Your task to perform on an android device: change your default location settings in chrome Image 0: 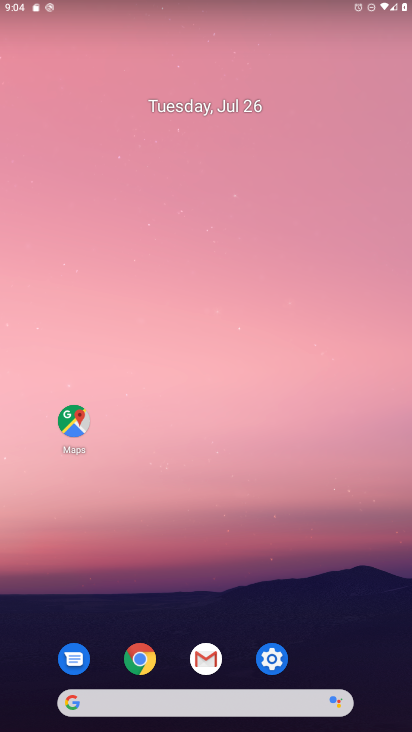
Step 0: click (145, 669)
Your task to perform on an android device: change your default location settings in chrome Image 1: 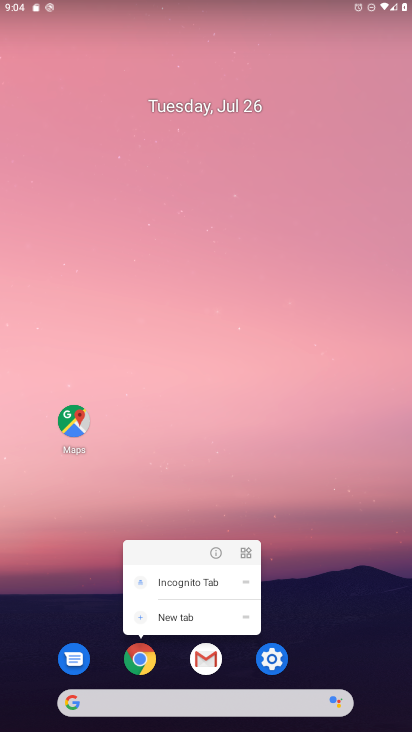
Step 1: click (145, 663)
Your task to perform on an android device: change your default location settings in chrome Image 2: 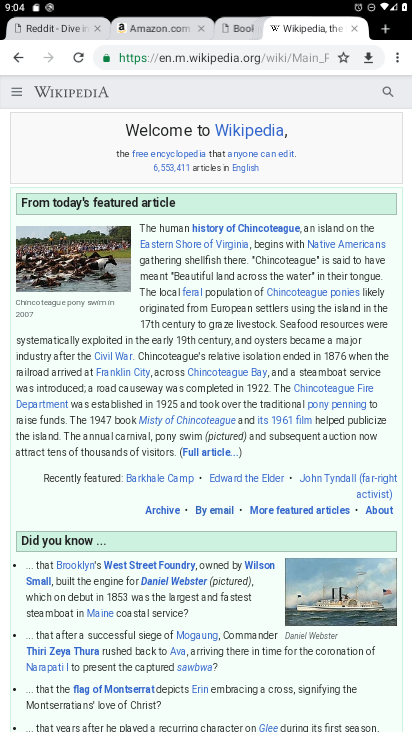
Step 2: click (399, 67)
Your task to perform on an android device: change your default location settings in chrome Image 3: 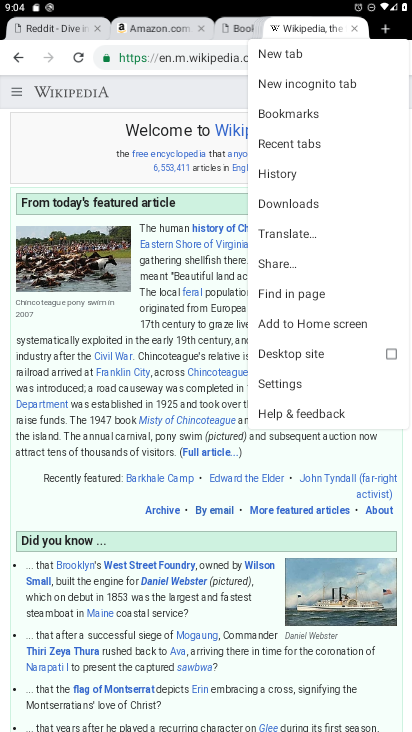
Step 3: click (275, 381)
Your task to perform on an android device: change your default location settings in chrome Image 4: 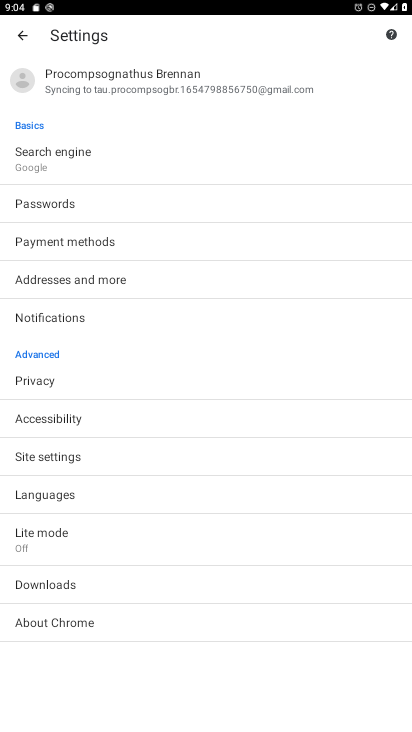
Step 4: click (25, 460)
Your task to perform on an android device: change your default location settings in chrome Image 5: 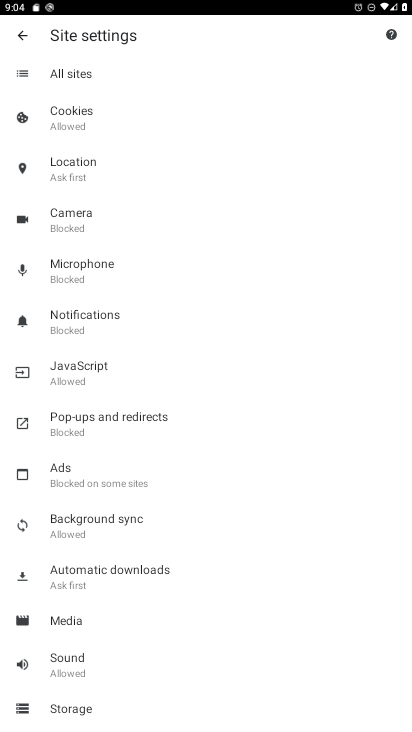
Step 5: click (84, 168)
Your task to perform on an android device: change your default location settings in chrome Image 6: 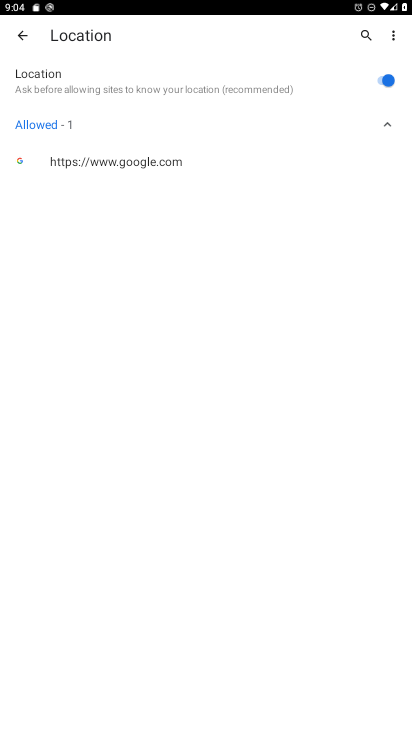
Step 6: click (386, 78)
Your task to perform on an android device: change your default location settings in chrome Image 7: 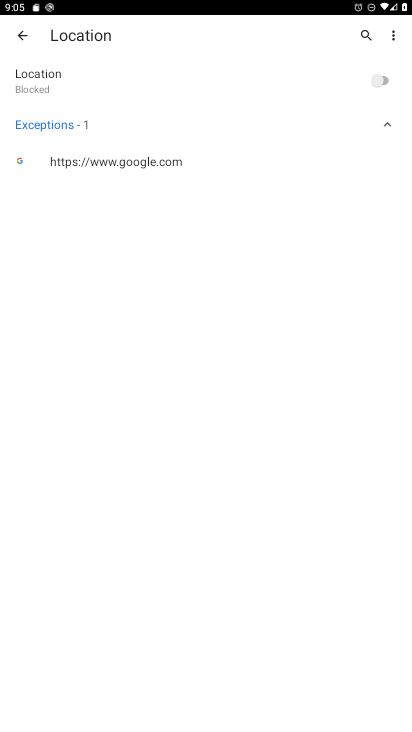
Step 7: task complete